Your task to perform on an android device: Turn off the flashlight Image 0: 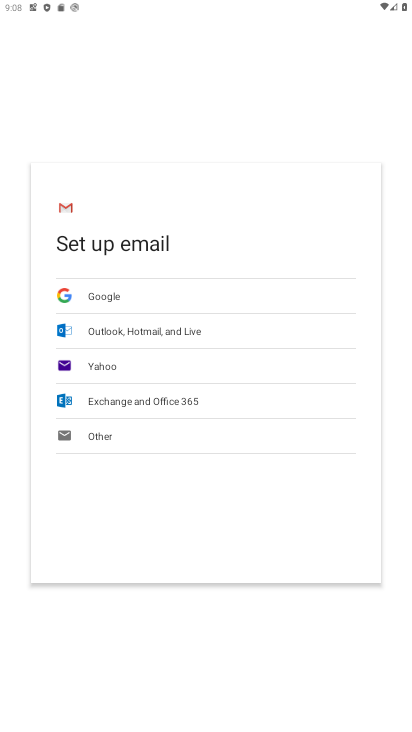
Step 0: press home button
Your task to perform on an android device: Turn off the flashlight Image 1: 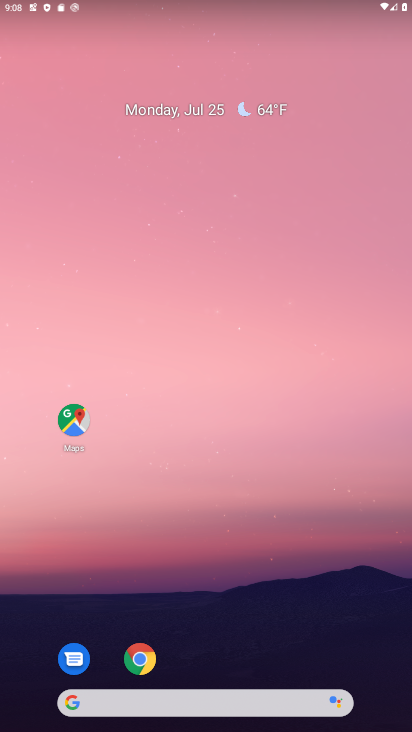
Step 1: drag from (247, 4) to (255, 327)
Your task to perform on an android device: Turn off the flashlight Image 2: 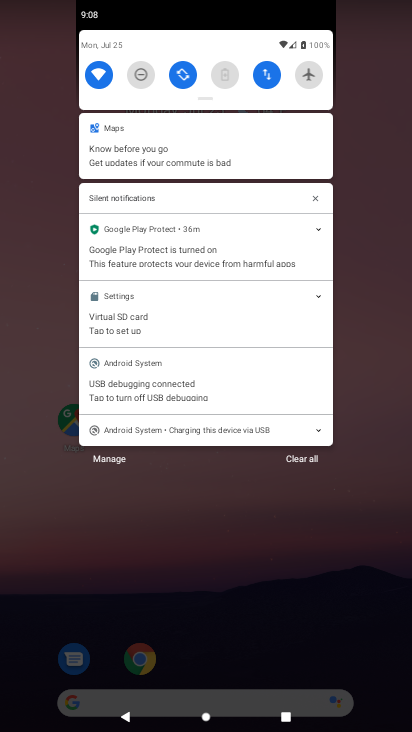
Step 2: drag from (192, 38) to (216, 221)
Your task to perform on an android device: Turn off the flashlight Image 3: 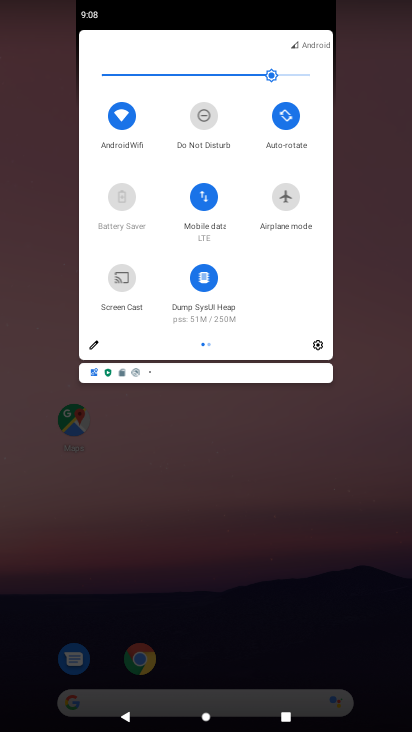
Step 3: click (95, 336)
Your task to perform on an android device: Turn off the flashlight Image 4: 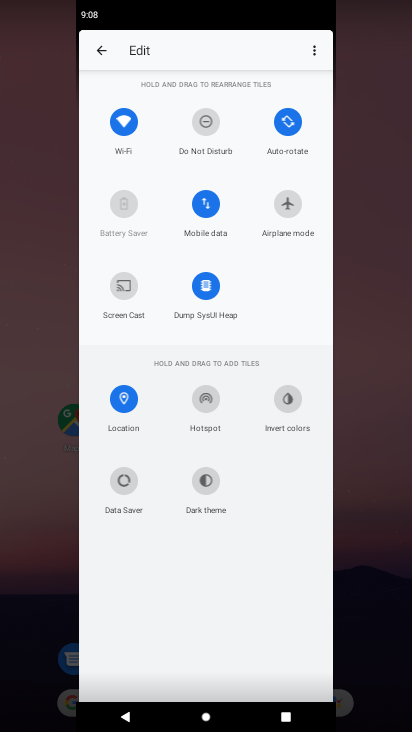
Step 4: task complete